Your task to perform on an android device: all mails in gmail Image 0: 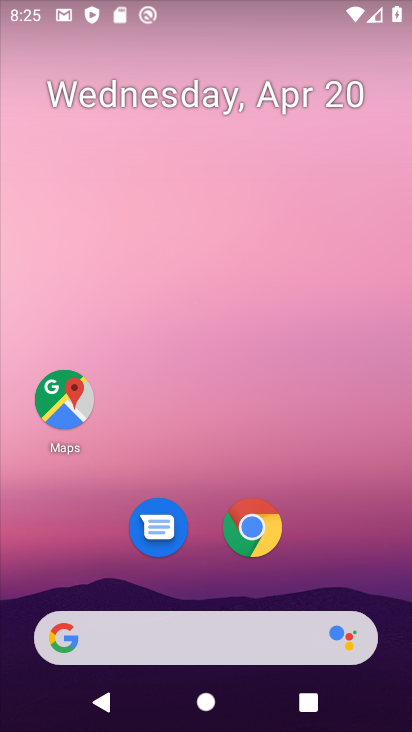
Step 0: drag from (303, 400) to (250, 20)
Your task to perform on an android device: all mails in gmail Image 1: 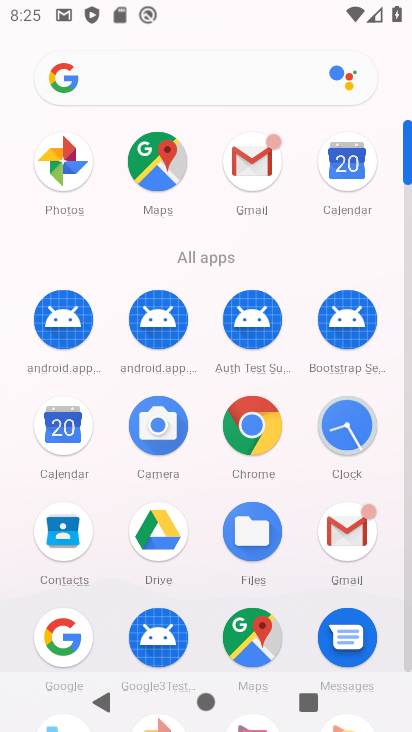
Step 1: click (266, 148)
Your task to perform on an android device: all mails in gmail Image 2: 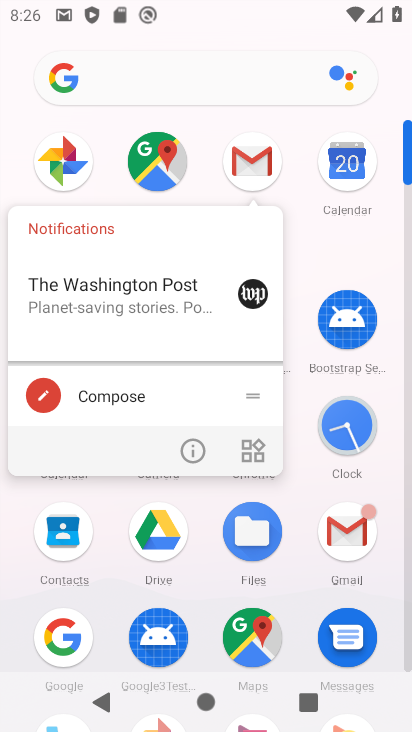
Step 2: click (260, 171)
Your task to perform on an android device: all mails in gmail Image 3: 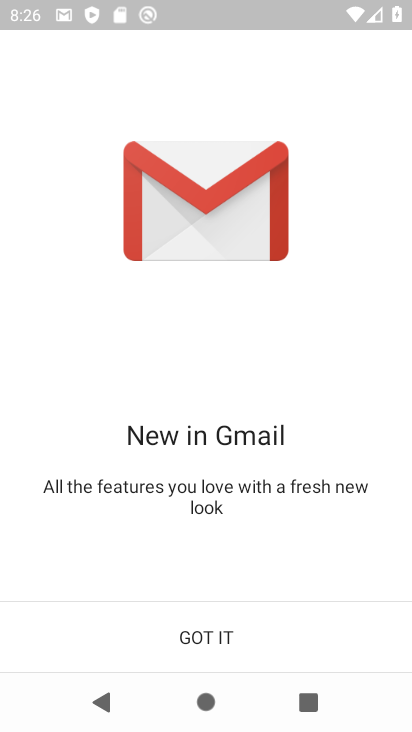
Step 3: click (220, 643)
Your task to perform on an android device: all mails in gmail Image 4: 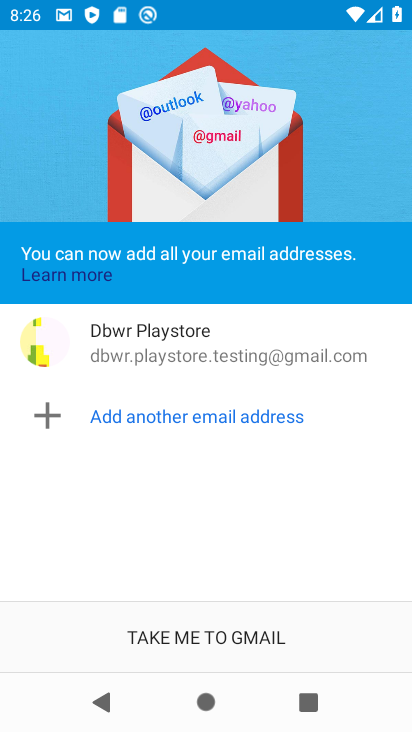
Step 4: click (220, 643)
Your task to perform on an android device: all mails in gmail Image 5: 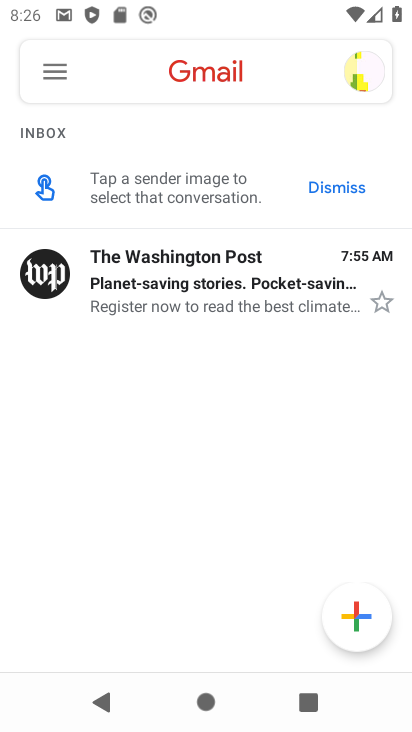
Step 5: click (60, 66)
Your task to perform on an android device: all mails in gmail Image 6: 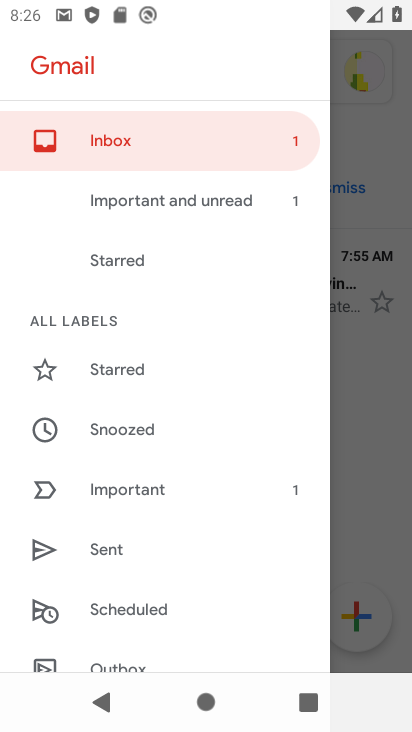
Step 6: drag from (269, 639) to (227, 139)
Your task to perform on an android device: all mails in gmail Image 7: 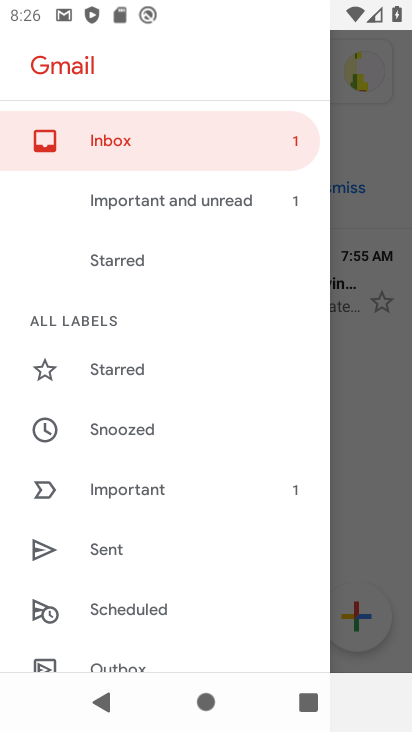
Step 7: drag from (224, 642) to (260, 234)
Your task to perform on an android device: all mails in gmail Image 8: 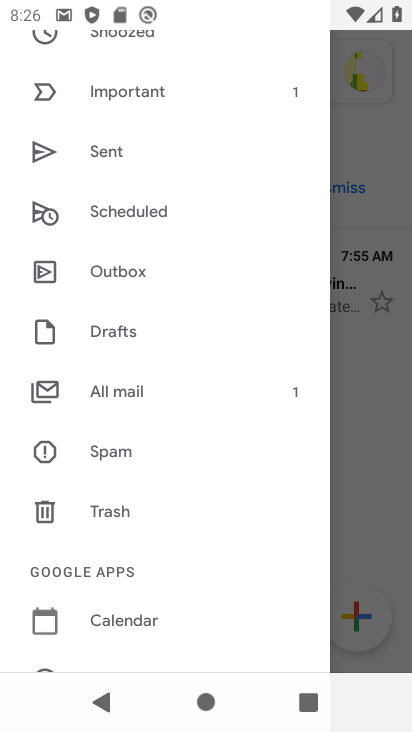
Step 8: click (189, 612)
Your task to perform on an android device: all mails in gmail Image 9: 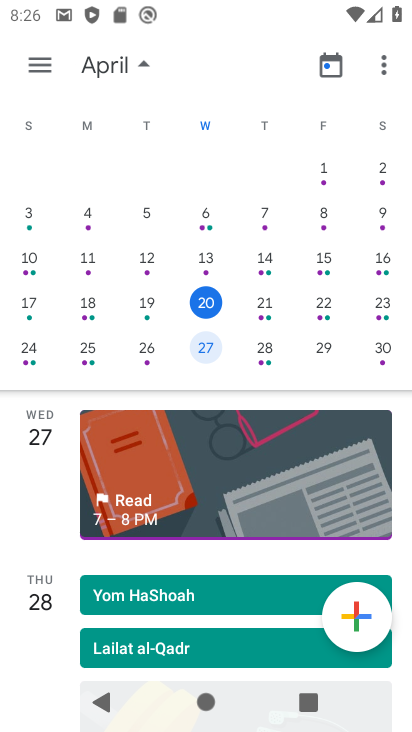
Step 9: press home button
Your task to perform on an android device: all mails in gmail Image 10: 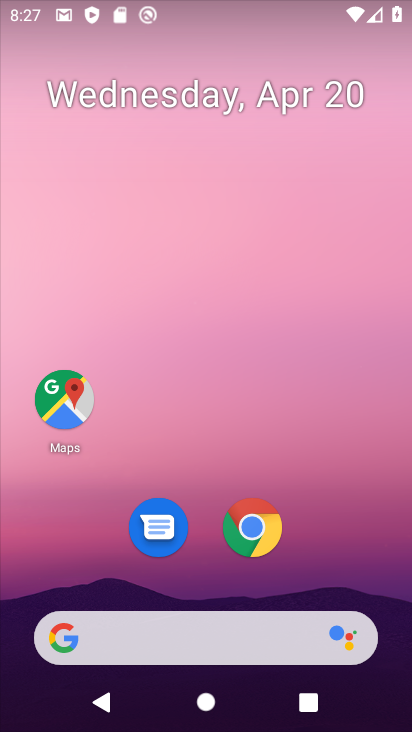
Step 10: drag from (376, 562) to (284, 19)
Your task to perform on an android device: all mails in gmail Image 11: 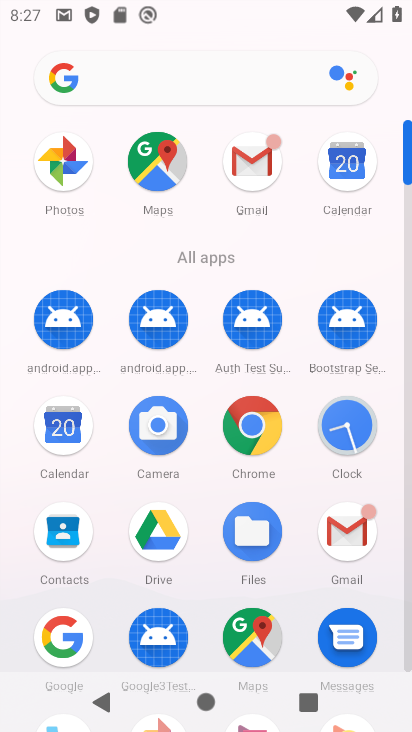
Step 11: click (279, 149)
Your task to perform on an android device: all mails in gmail Image 12: 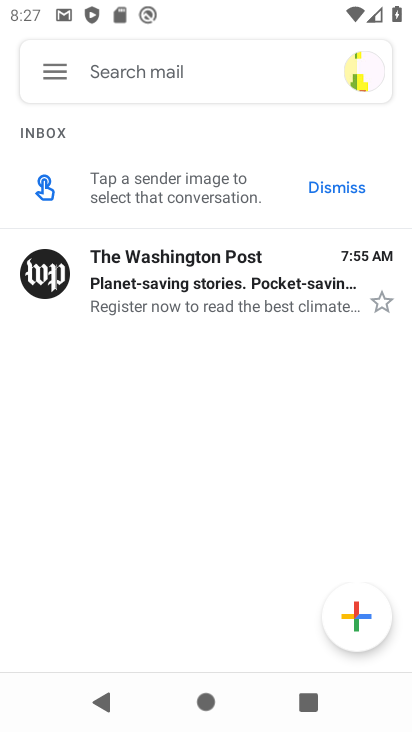
Step 12: click (49, 58)
Your task to perform on an android device: all mails in gmail Image 13: 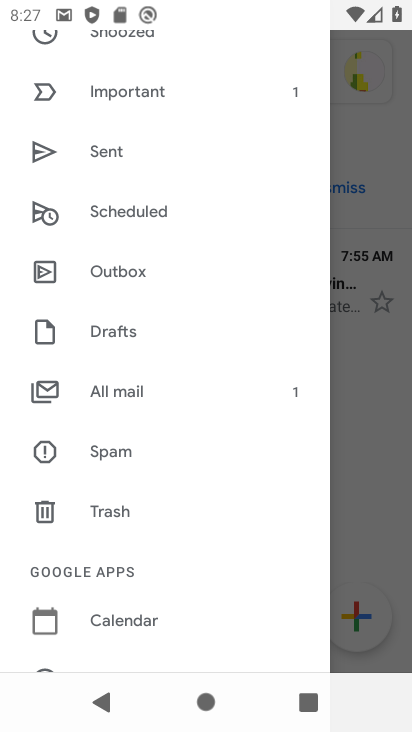
Step 13: click (92, 385)
Your task to perform on an android device: all mails in gmail Image 14: 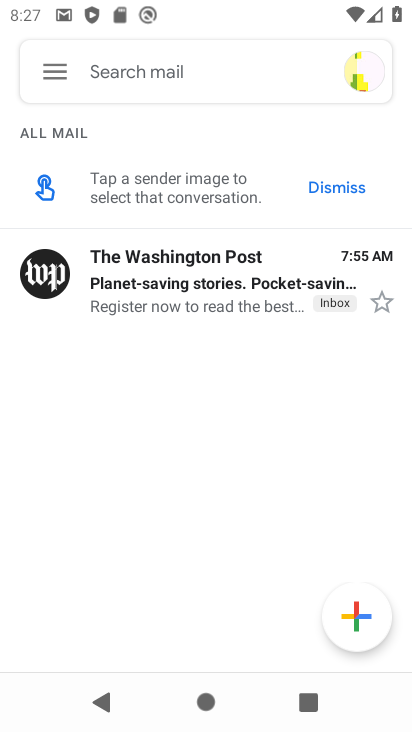
Step 14: task complete